Your task to perform on an android device: Search for pizza restaurants on Maps Image 0: 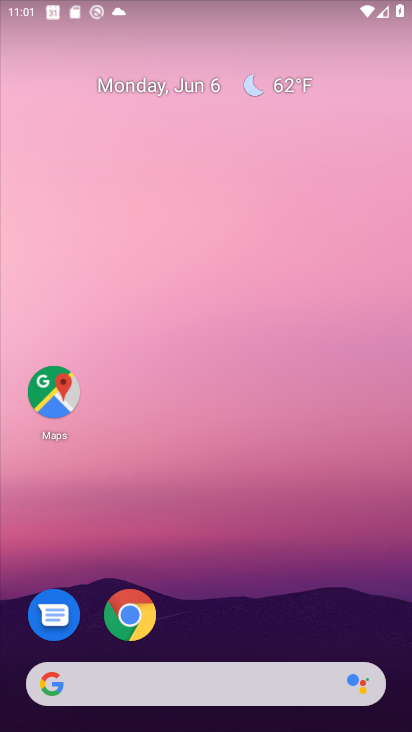
Step 0: drag from (285, 719) to (226, 273)
Your task to perform on an android device: Search for pizza restaurants on Maps Image 1: 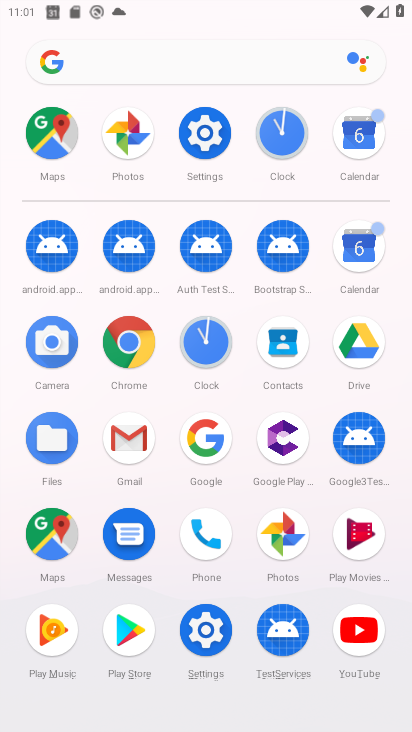
Step 1: click (52, 132)
Your task to perform on an android device: Search for pizza restaurants on Maps Image 2: 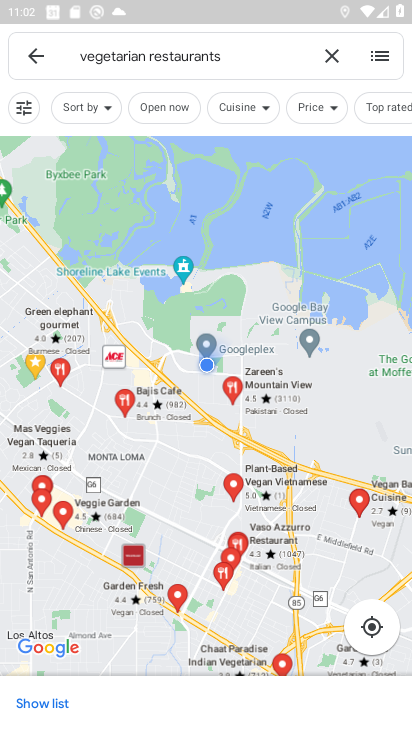
Step 2: click (327, 51)
Your task to perform on an android device: Search for pizza restaurants on Maps Image 3: 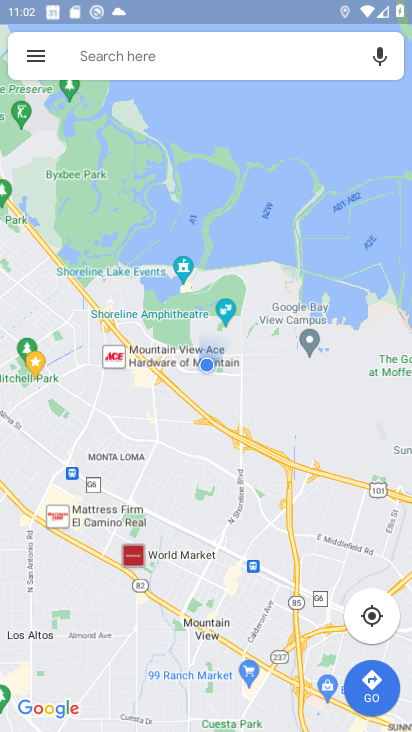
Step 3: click (89, 52)
Your task to perform on an android device: Search for pizza restaurants on Maps Image 4: 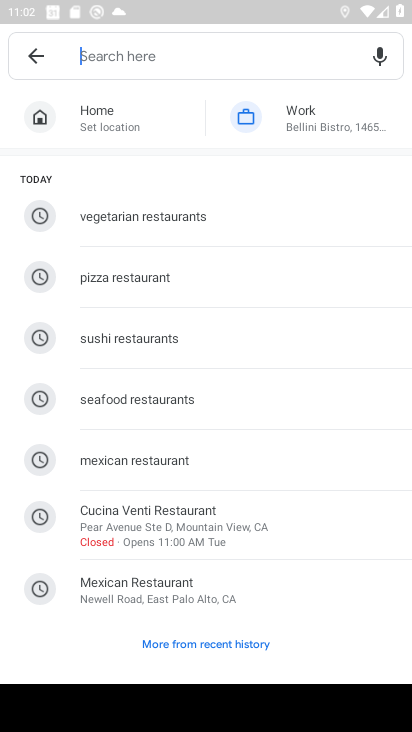
Step 4: click (139, 279)
Your task to perform on an android device: Search for pizza restaurants on Maps Image 5: 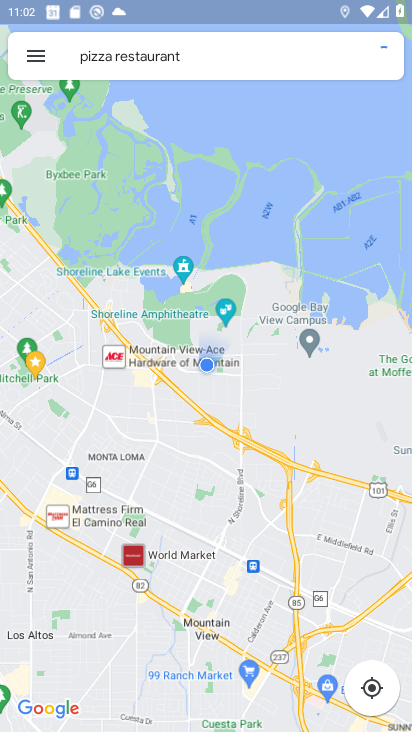
Step 5: task complete